Your task to perform on an android device: toggle translation in the chrome app Image 0: 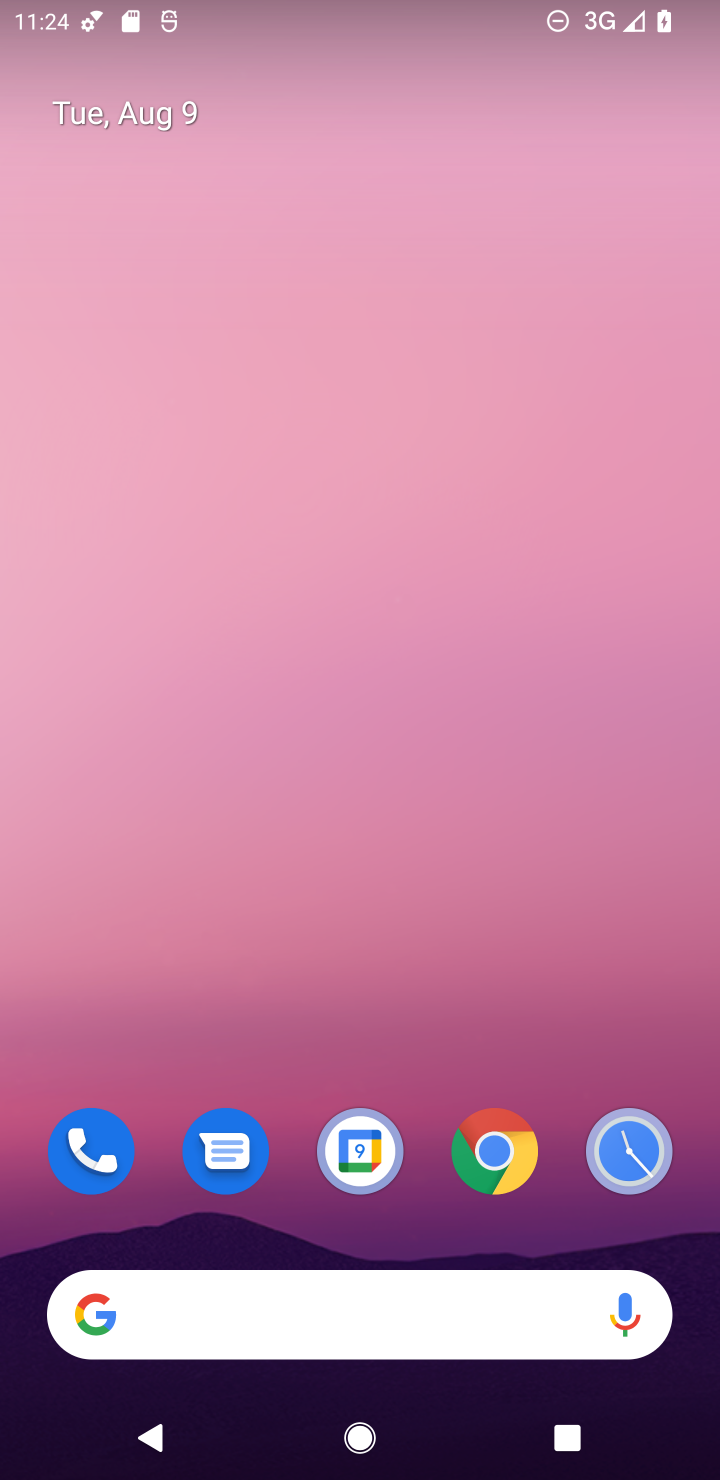
Step 0: click (491, 1154)
Your task to perform on an android device: toggle translation in the chrome app Image 1: 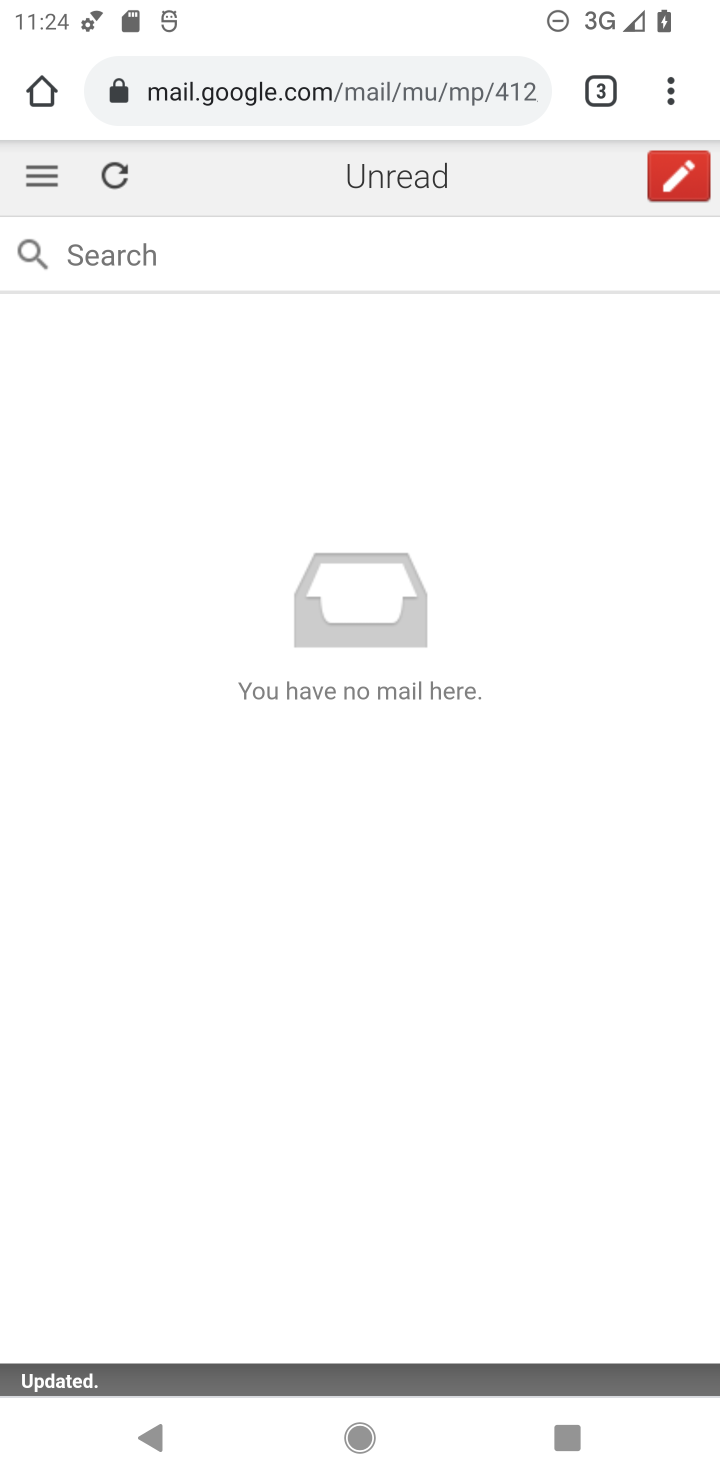
Step 1: click (662, 91)
Your task to perform on an android device: toggle translation in the chrome app Image 2: 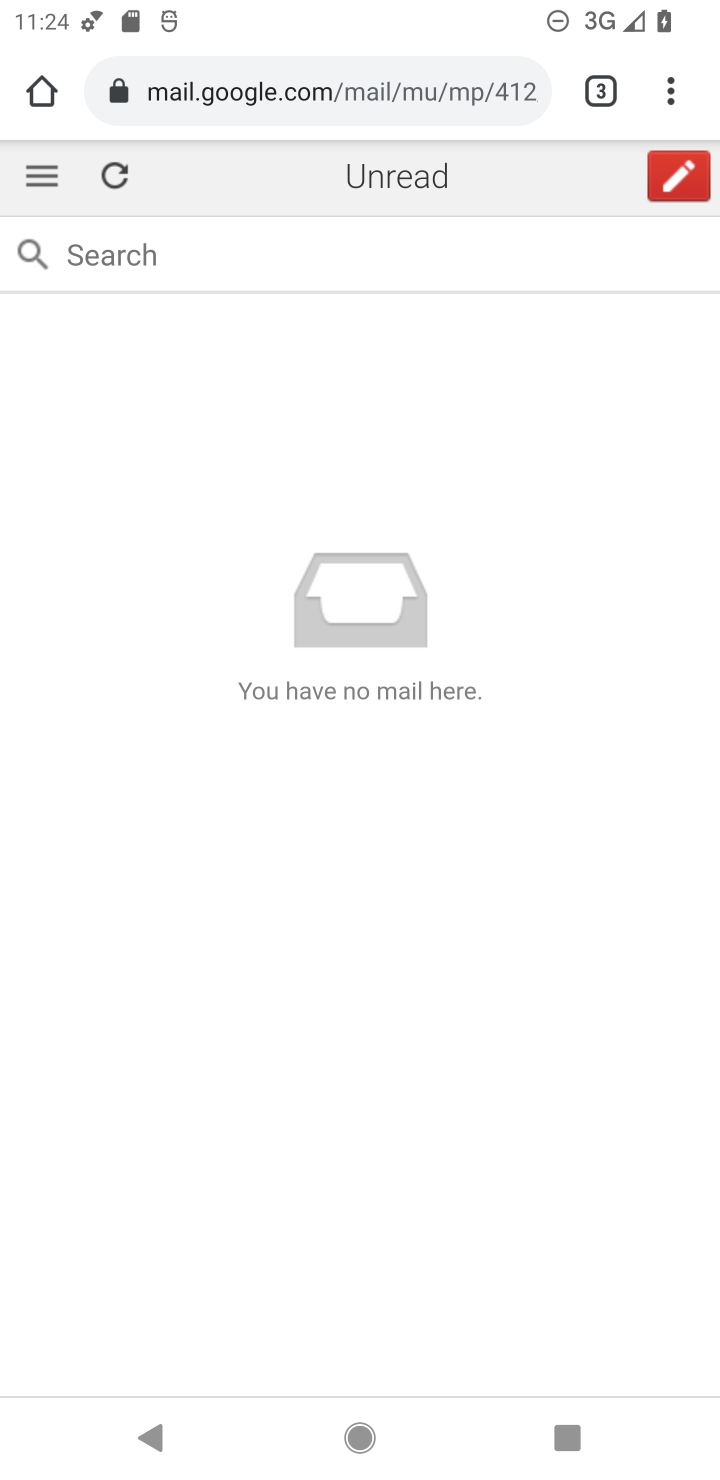
Step 2: click (664, 92)
Your task to perform on an android device: toggle translation in the chrome app Image 3: 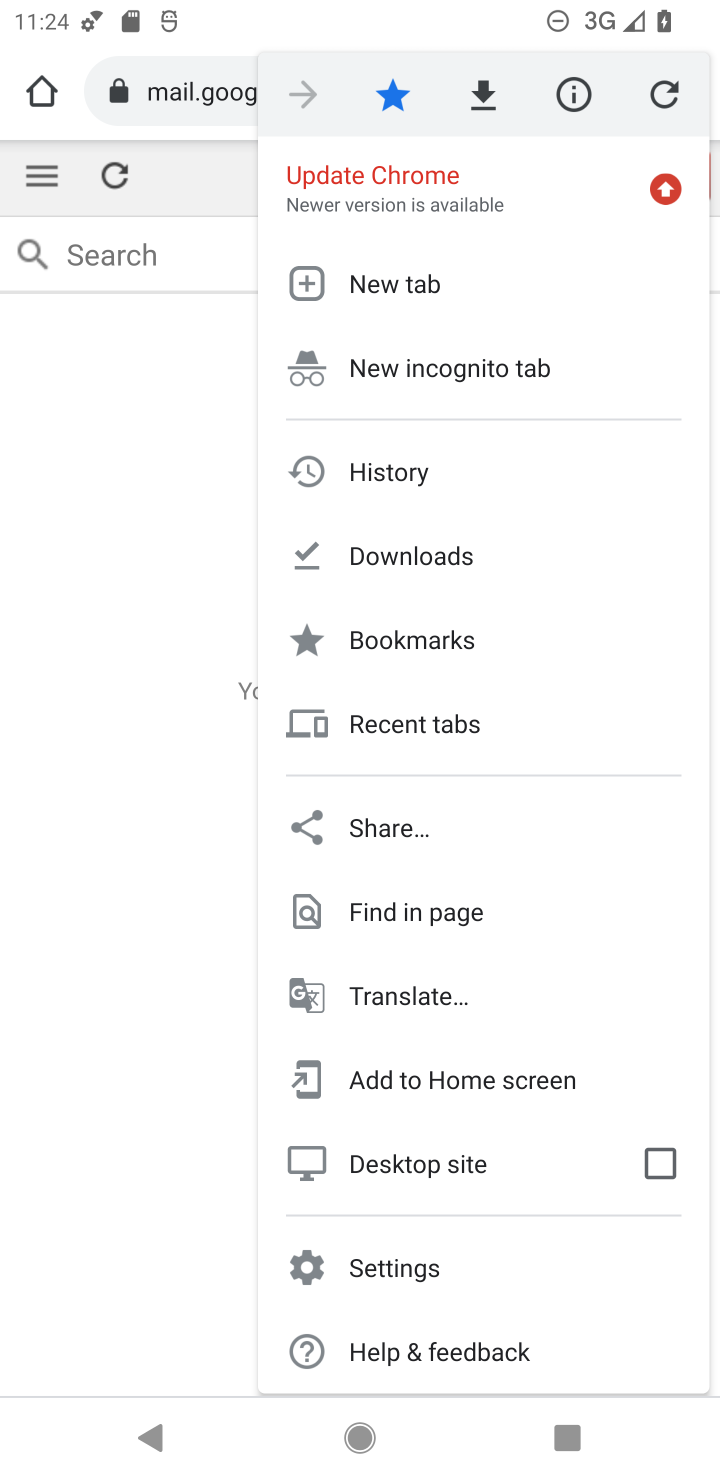
Step 3: click (364, 1004)
Your task to perform on an android device: toggle translation in the chrome app Image 4: 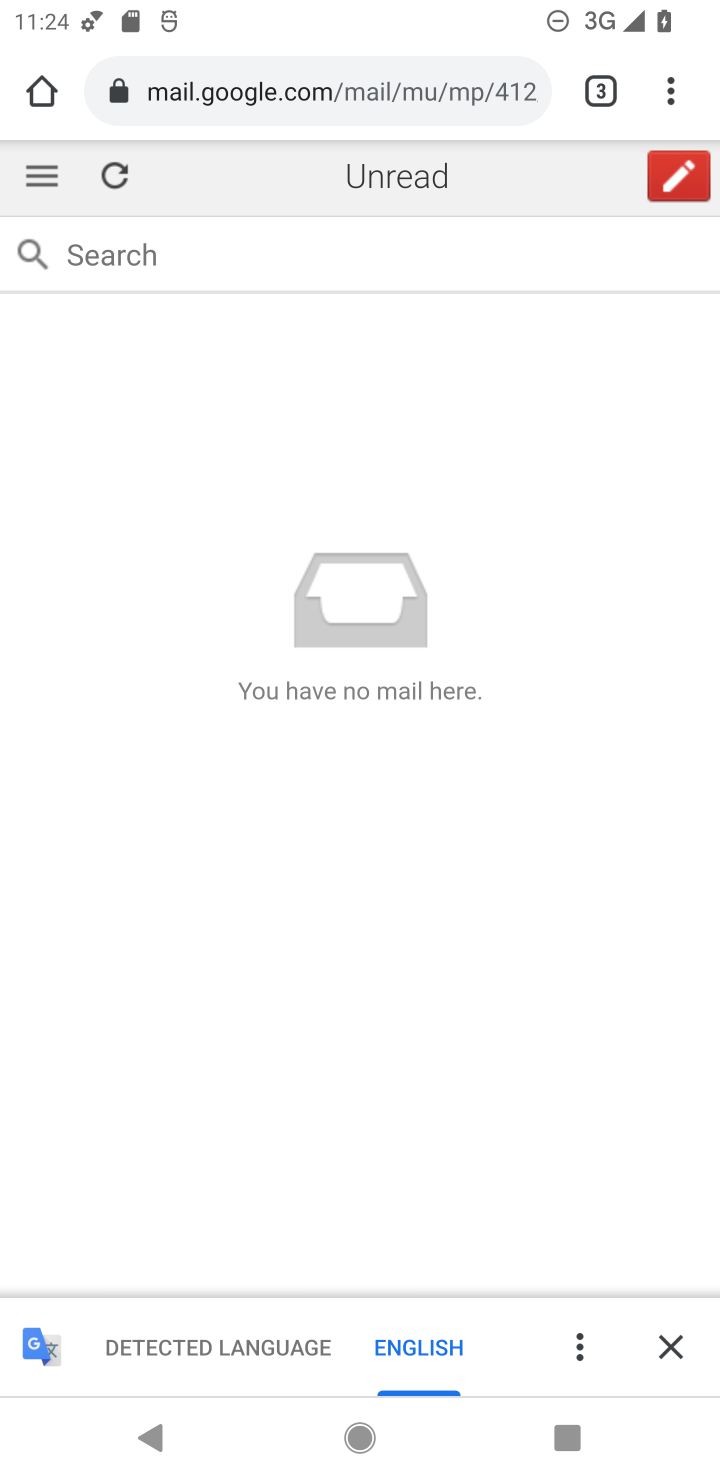
Step 4: click (664, 1346)
Your task to perform on an android device: toggle translation in the chrome app Image 5: 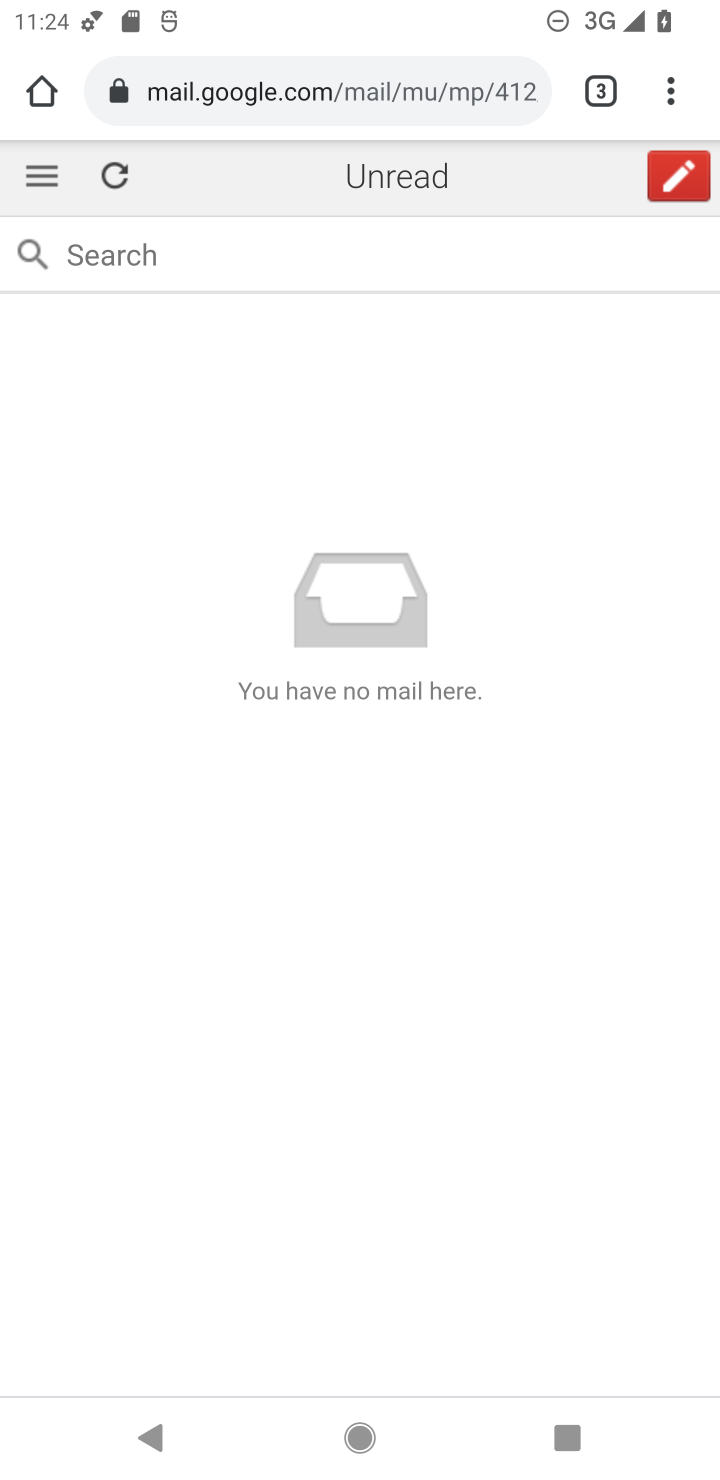
Step 5: click (655, 89)
Your task to perform on an android device: toggle translation in the chrome app Image 6: 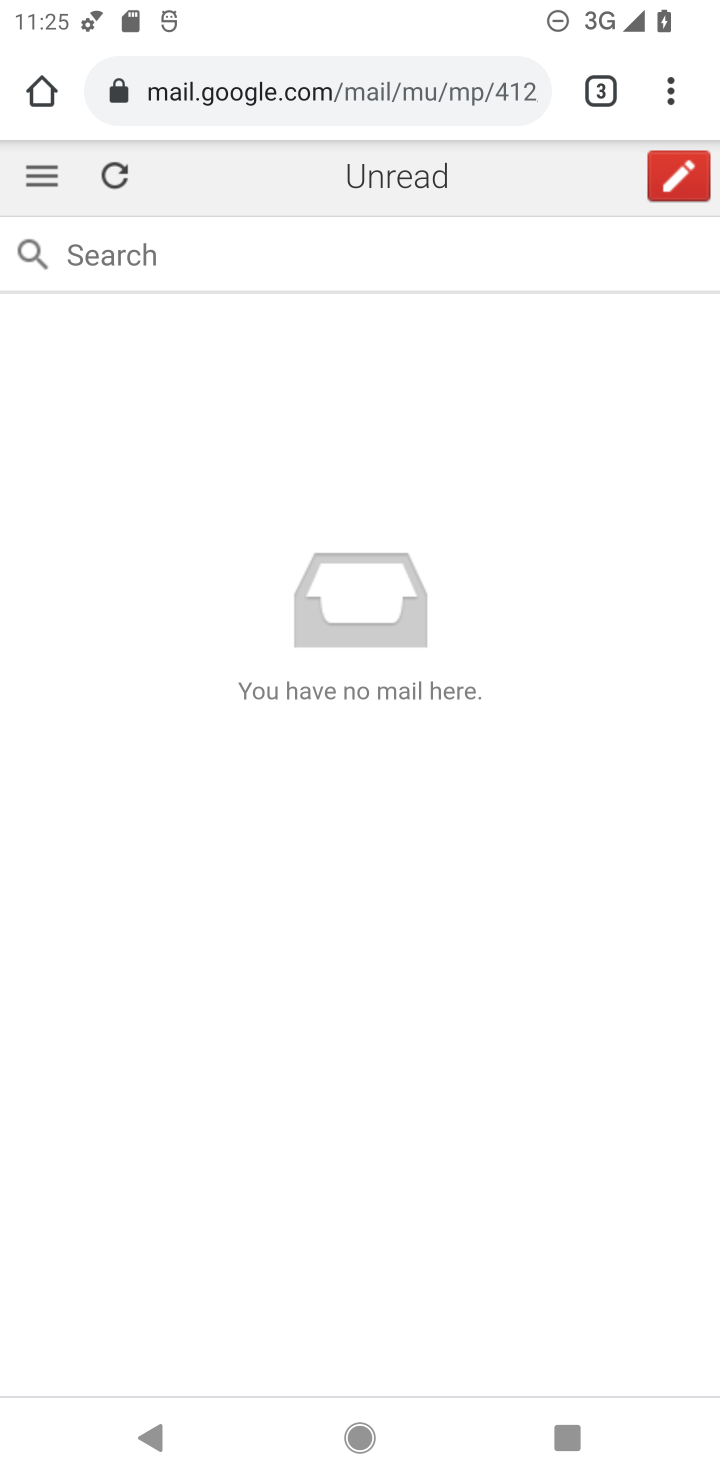
Step 6: click (683, 94)
Your task to perform on an android device: toggle translation in the chrome app Image 7: 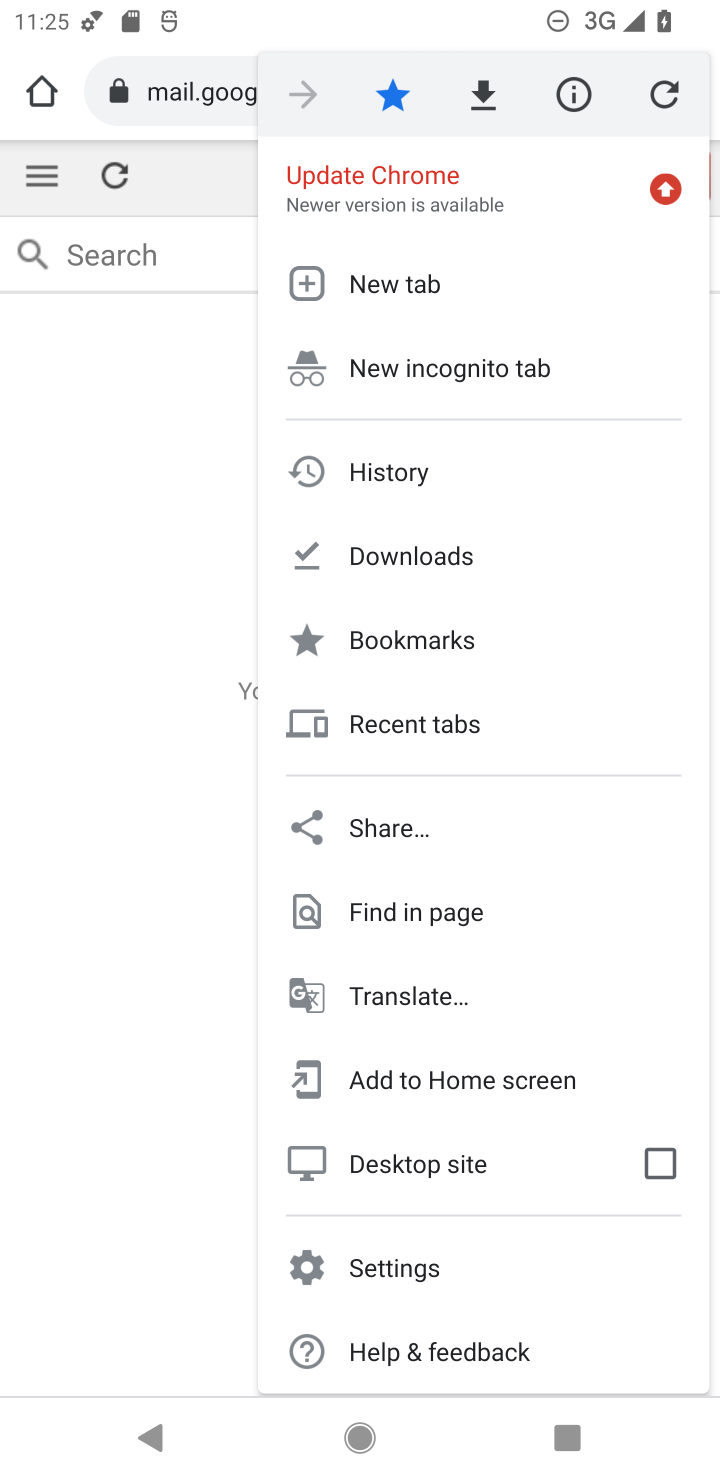
Step 7: click (411, 1237)
Your task to perform on an android device: toggle translation in the chrome app Image 8: 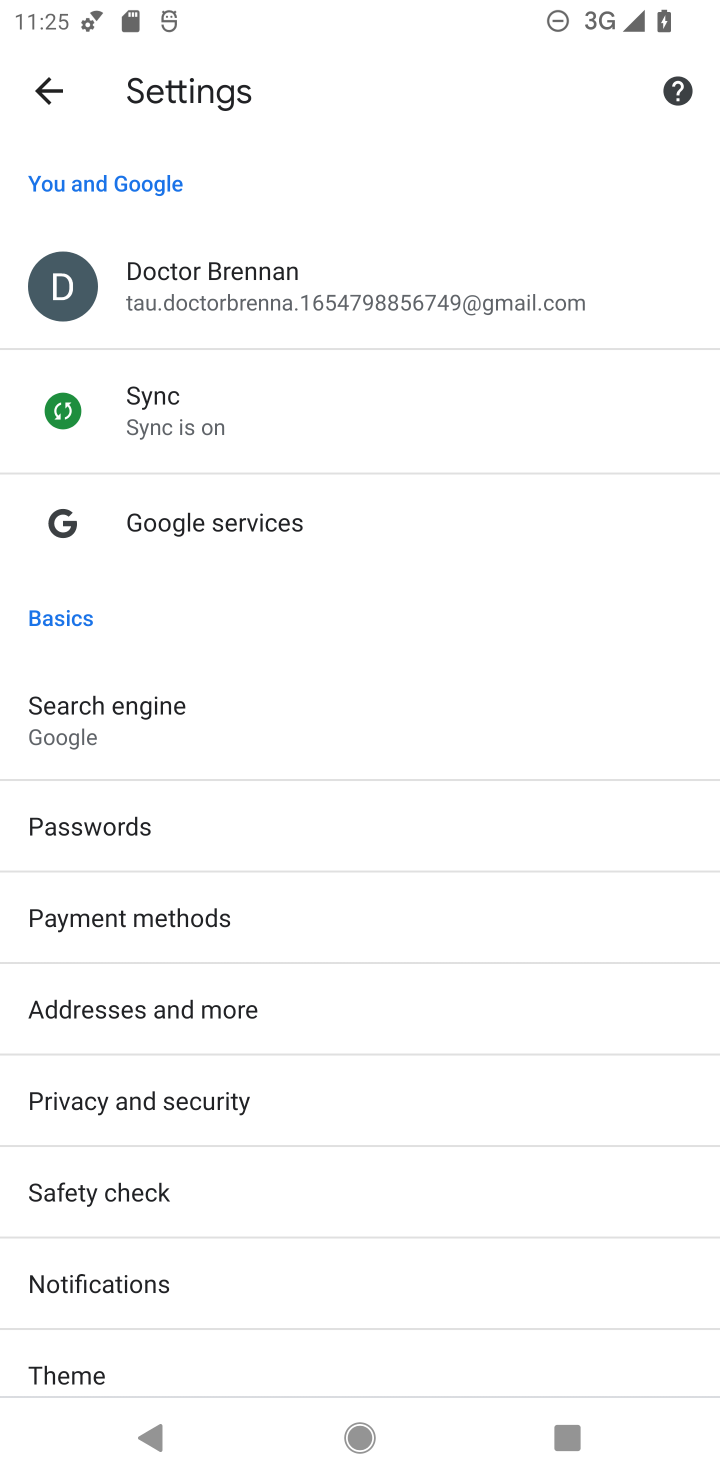
Step 8: click (411, 1237)
Your task to perform on an android device: toggle translation in the chrome app Image 9: 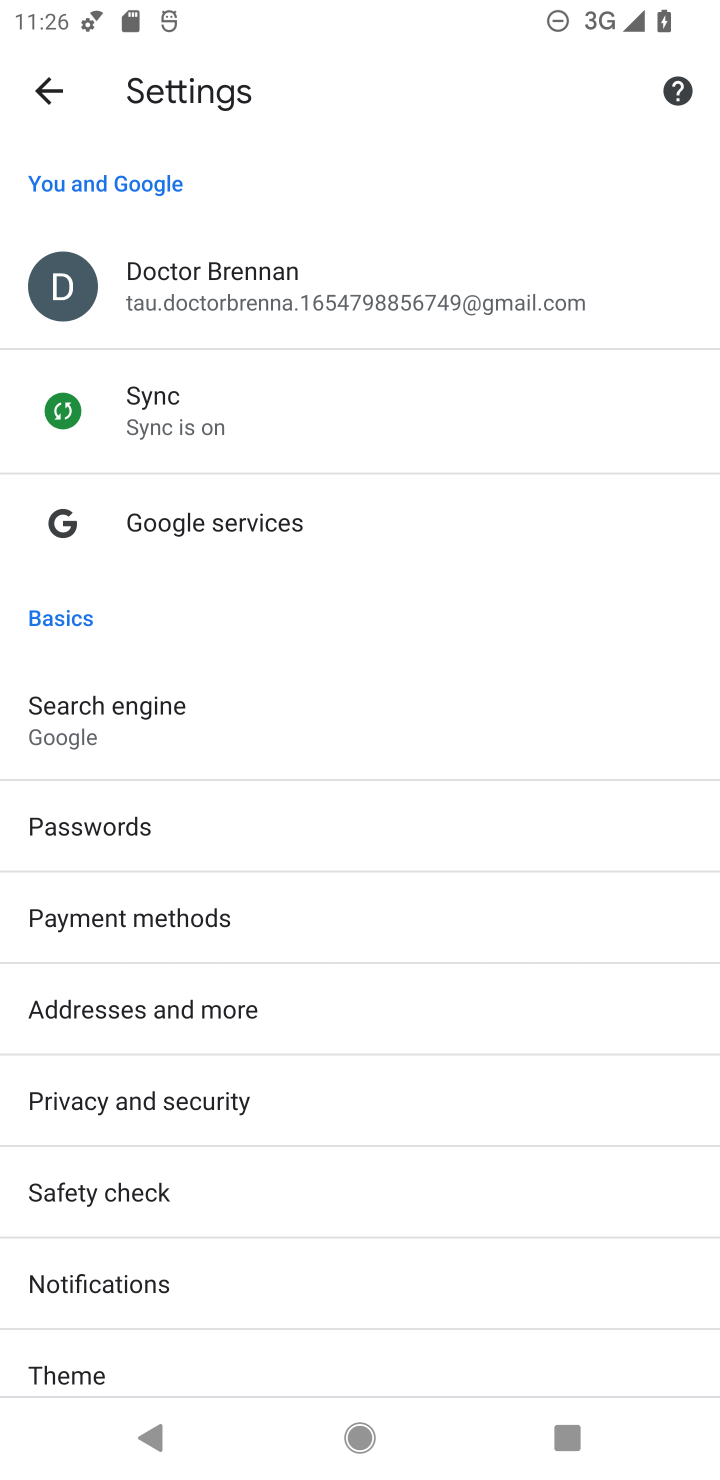
Step 9: drag from (229, 1031) to (314, 214)
Your task to perform on an android device: toggle translation in the chrome app Image 10: 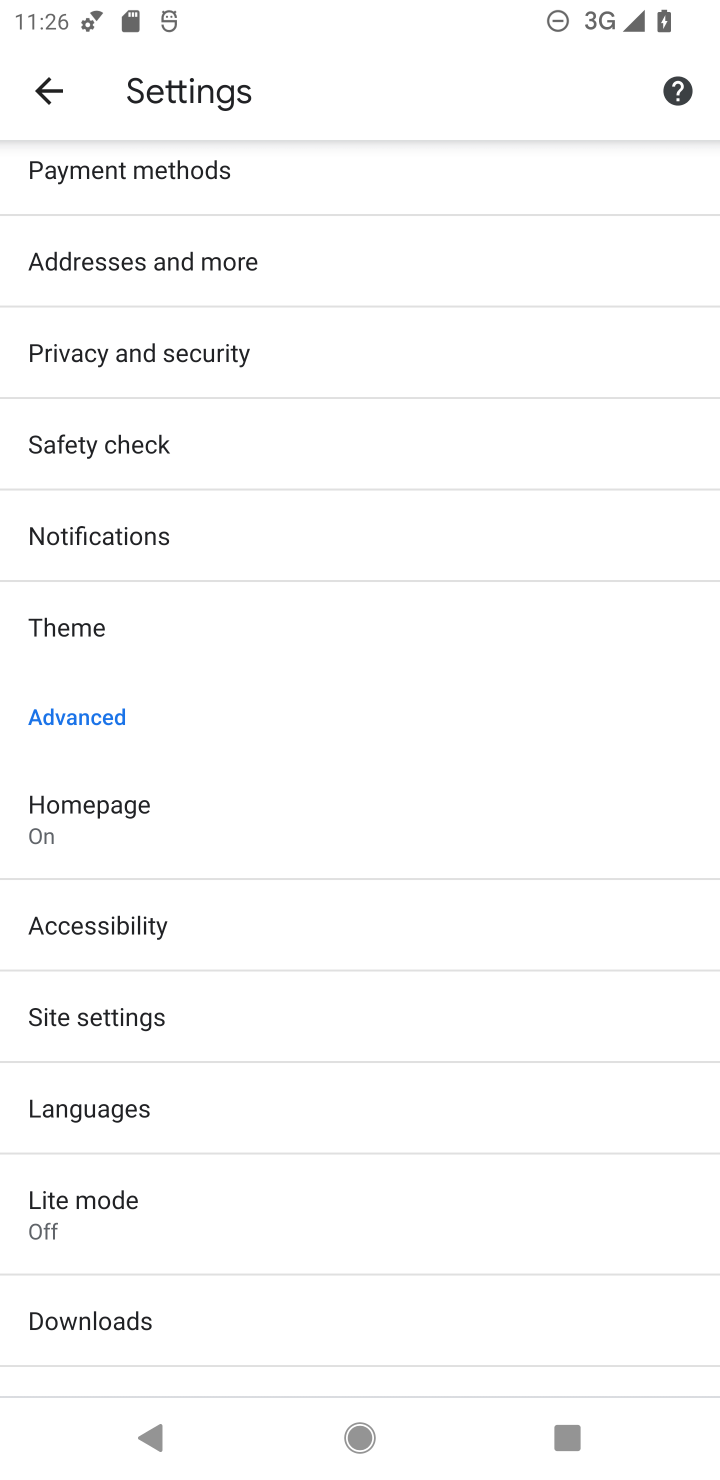
Step 10: click (134, 1115)
Your task to perform on an android device: toggle translation in the chrome app Image 11: 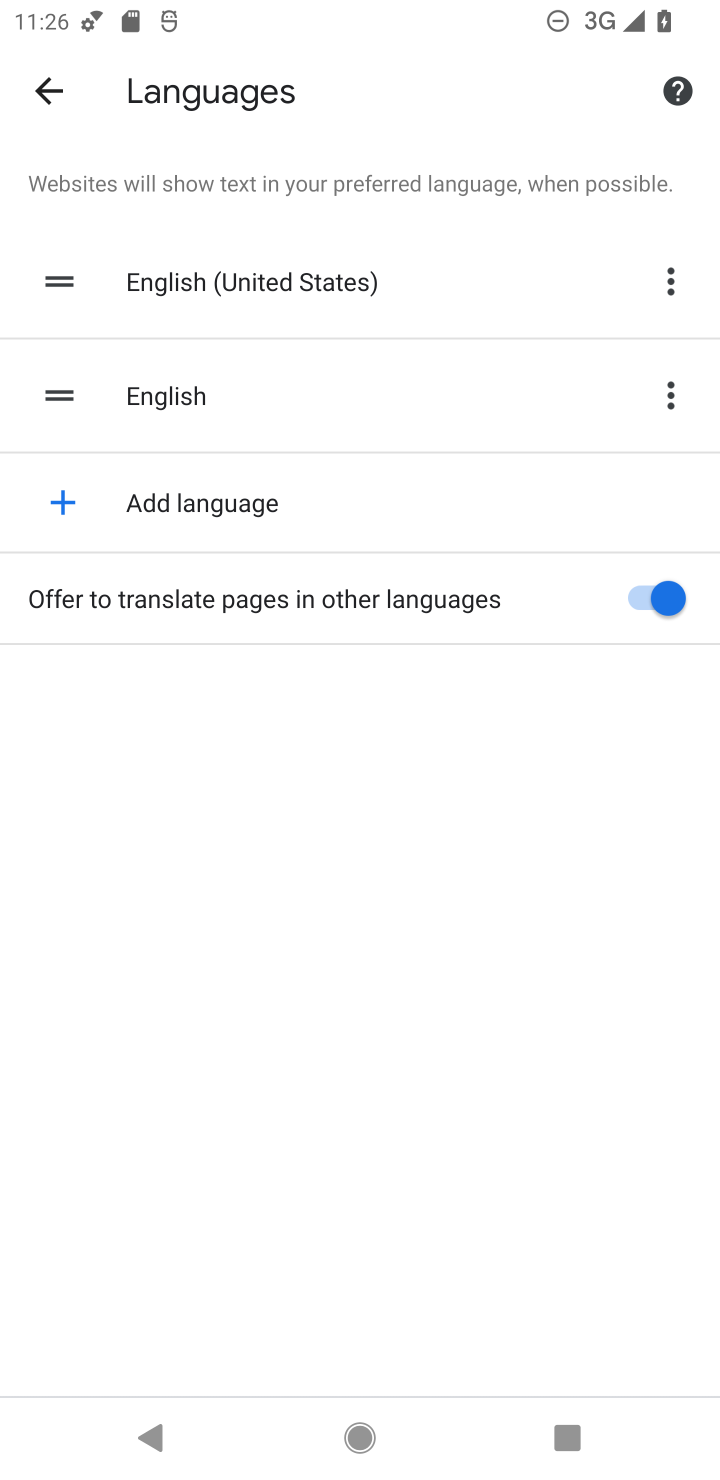
Step 11: click (654, 593)
Your task to perform on an android device: toggle translation in the chrome app Image 12: 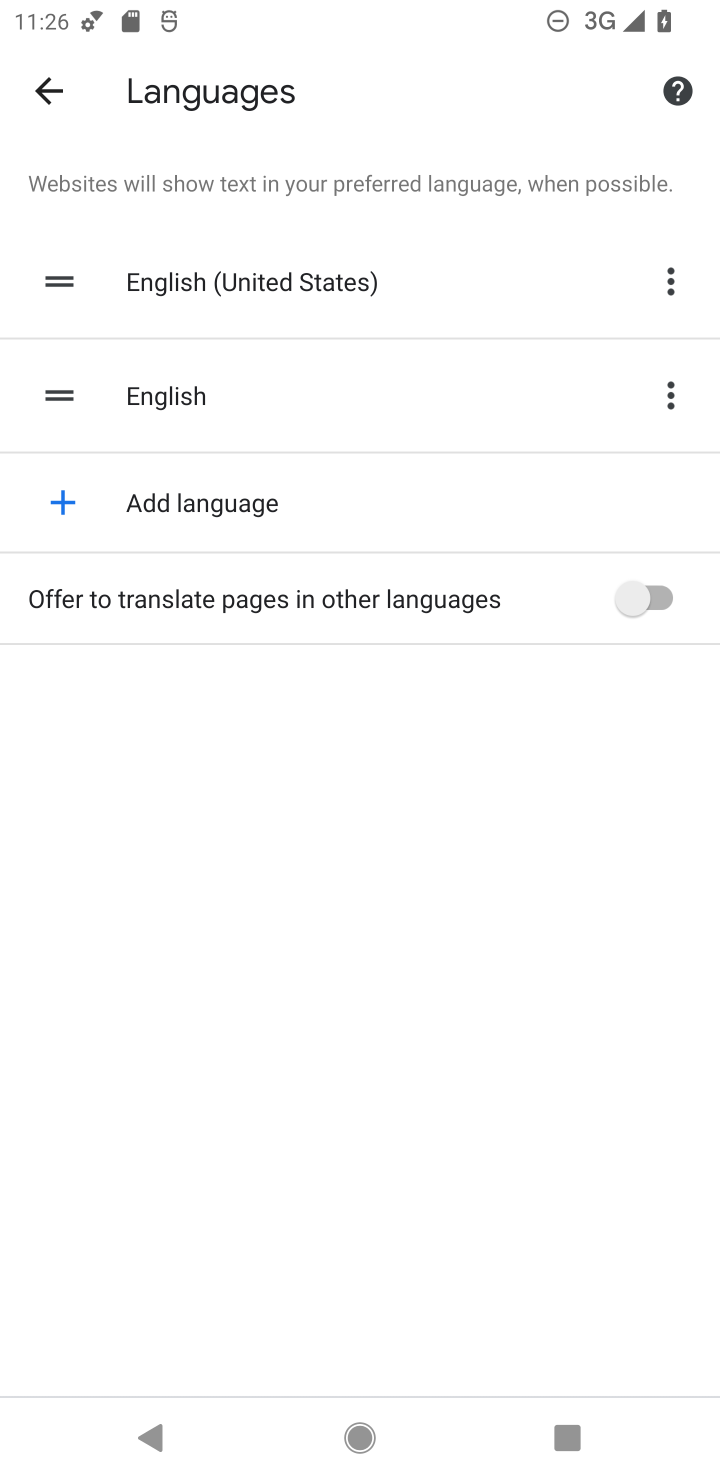
Step 12: task complete